Your task to perform on an android device: turn on data saver in the chrome app Image 0: 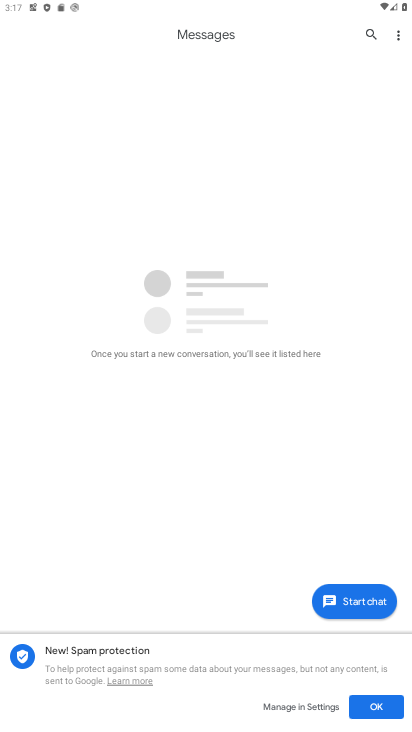
Step 0: press home button
Your task to perform on an android device: turn on data saver in the chrome app Image 1: 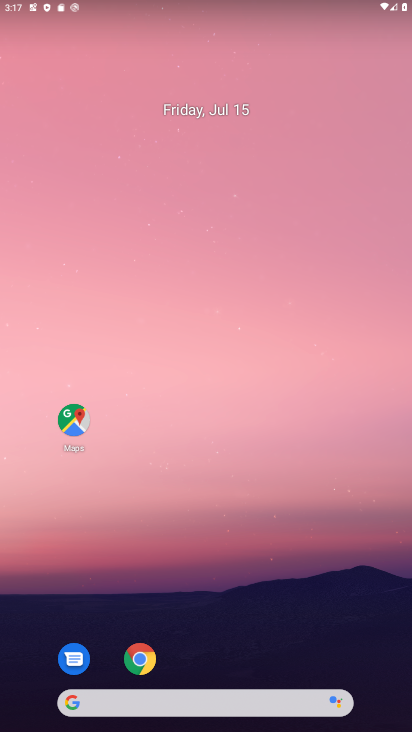
Step 1: click (136, 659)
Your task to perform on an android device: turn on data saver in the chrome app Image 2: 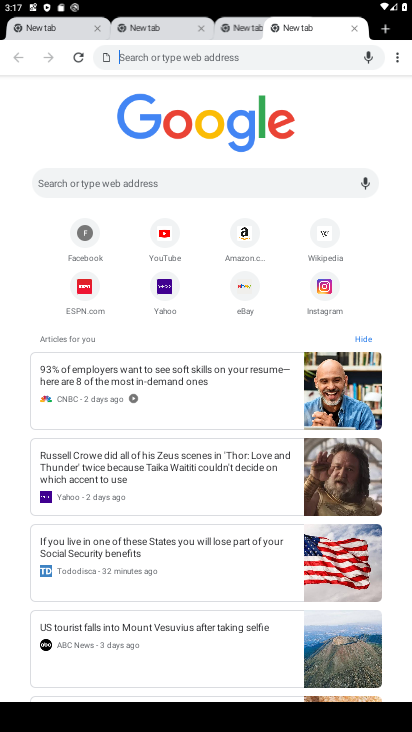
Step 2: click (396, 59)
Your task to perform on an android device: turn on data saver in the chrome app Image 3: 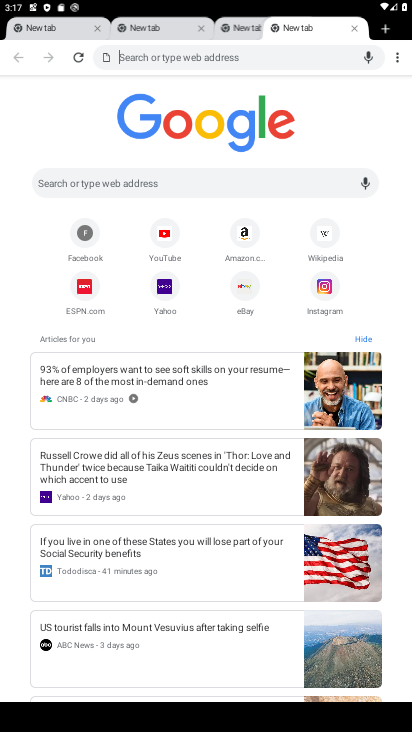
Step 3: click (396, 64)
Your task to perform on an android device: turn on data saver in the chrome app Image 4: 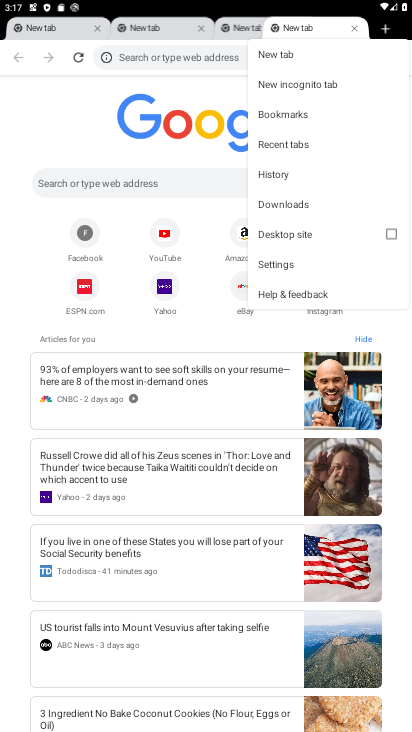
Step 4: click (292, 265)
Your task to perform on an android device: turn on data saver in the chrome app Image 5: 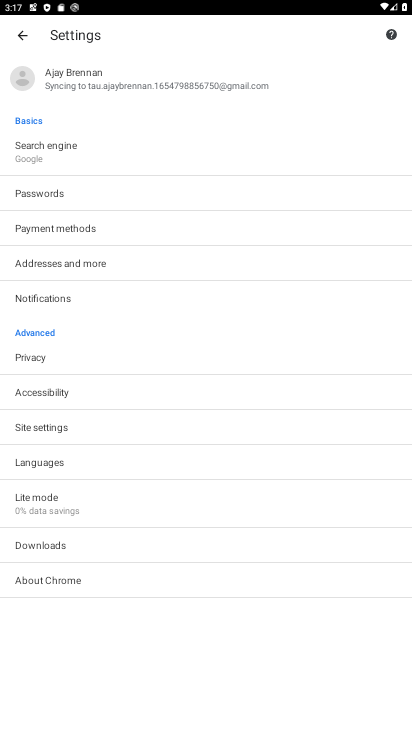
Step 5: click (44, 500)
Your task to perform on an android device: turn on data saver in the chrome app Image 6: 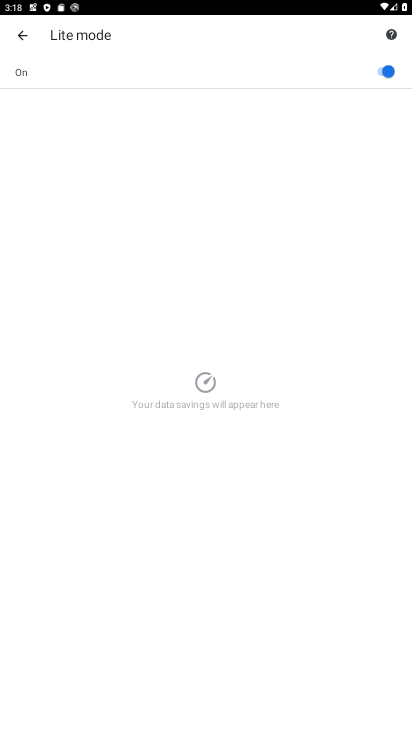
Step 6: task complete